Your task to perform on an android device: open a new tab in the chrome app Image 0: 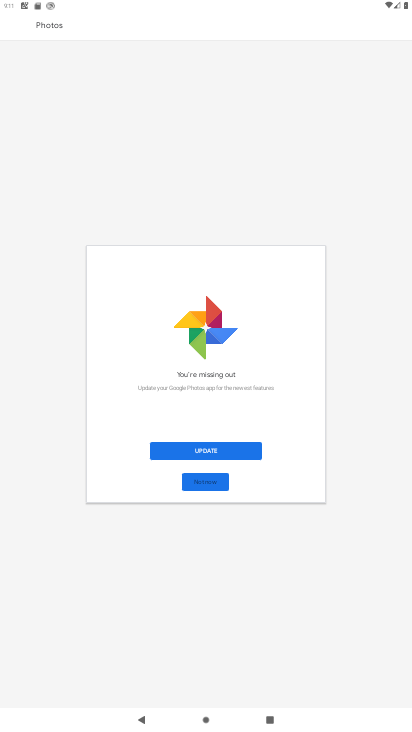
Step 0: press back button
Your task to perform on an android device: open a new tab in the chrome app Image 1: 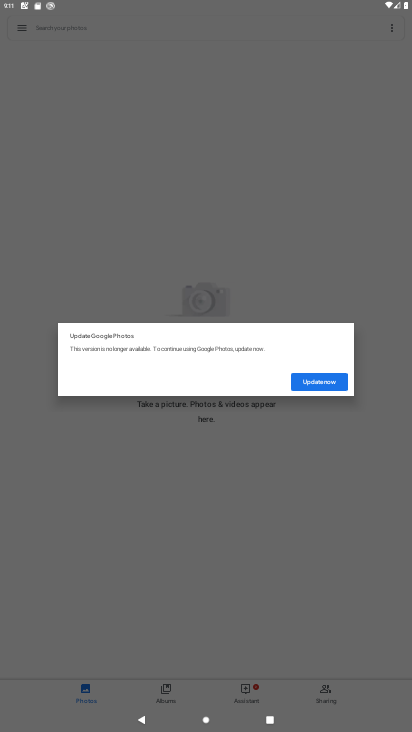
Step 1: press back button
Your task to perform on an android device: open a new tab in the chrome app Image 2: 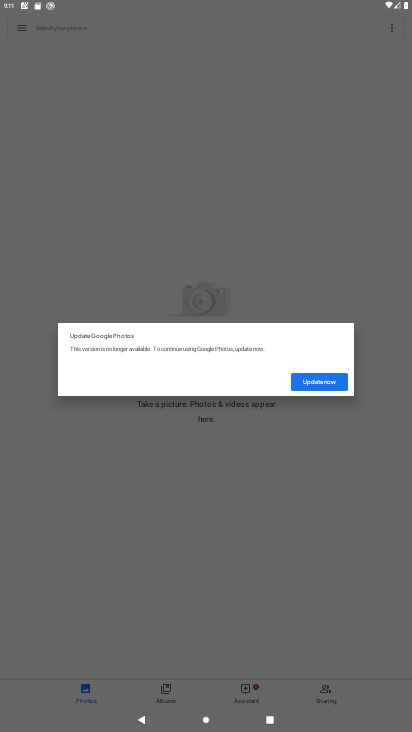
Step 2: press home button
Your task to perform on an android device: open a new tab in the chrome app Image 3: 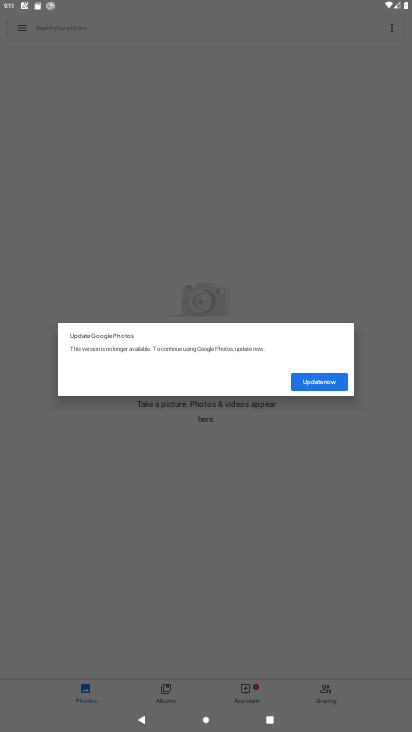
Step 3: press home button
Your task to perform on an android device: open a new tab in the chrome app Image 4: 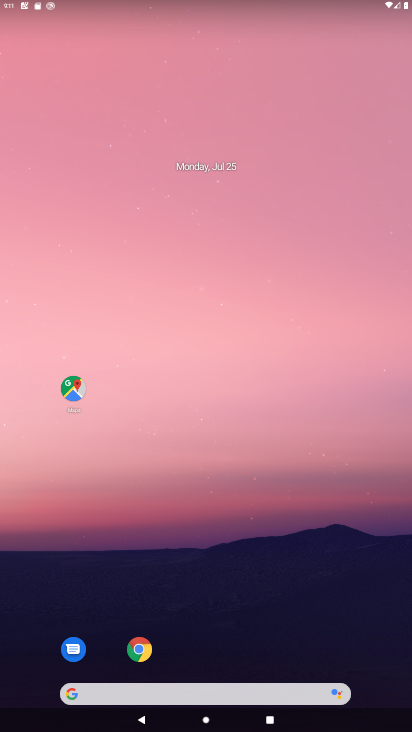
Step 4: press home button
Your task to perform on an android device: open a new tab in the chrome app Image 5: 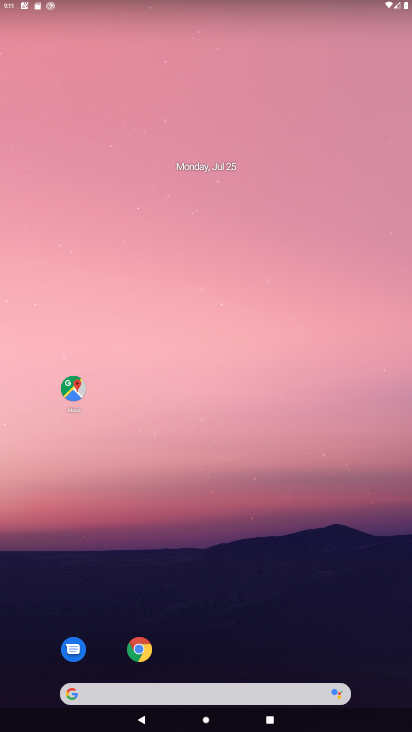
Step 5: click (137, 657)
Your task to perform on an android device: open a new tab in the chrome app Image 6: 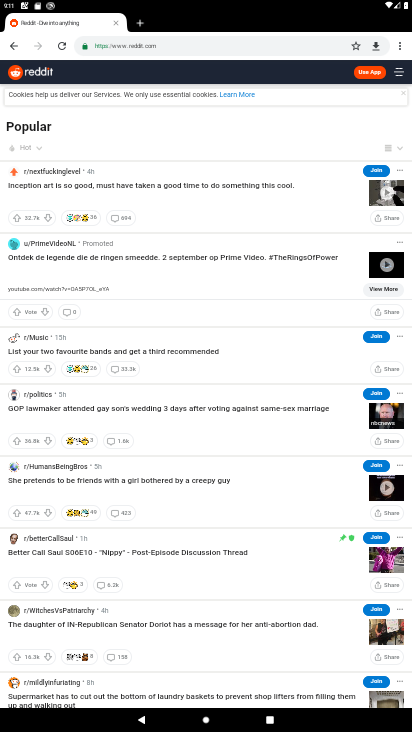
Step 6: click (133, 25)
Your task to perform on an android device: open a new tab in the chrome app Image 7: 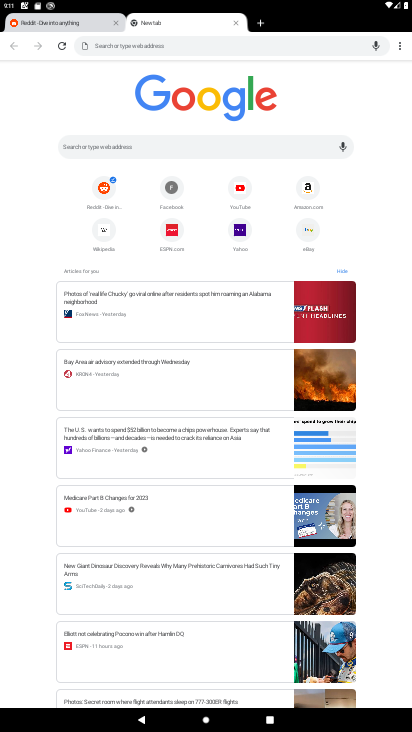
Step 7: click (392, 62)
Your task to perform on an android device: open a new tab in the chrome app Image 8: 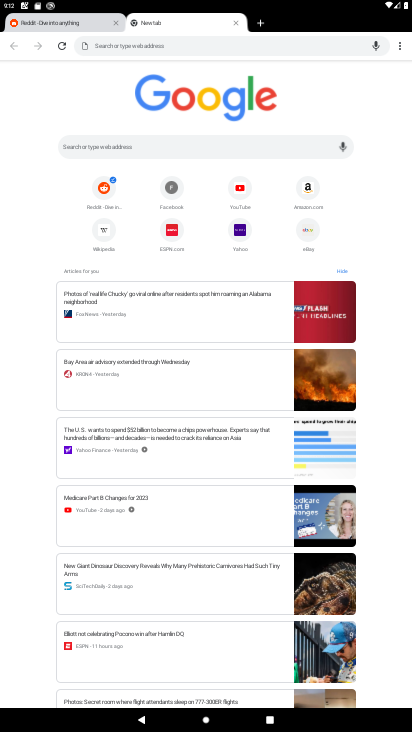
Step 8: task complete